Your task to perform on an android device: Do I have any events today? Image 0: 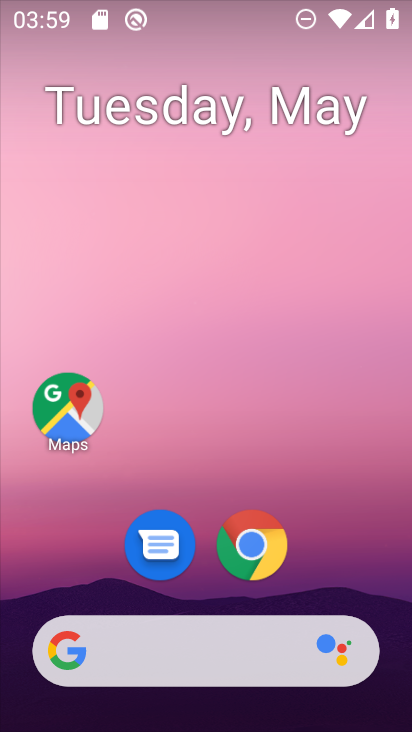
Step 0: drag from (376, 600) to (309, 56)
Your task to perform on an android device: Do I have any events today? Image 1: 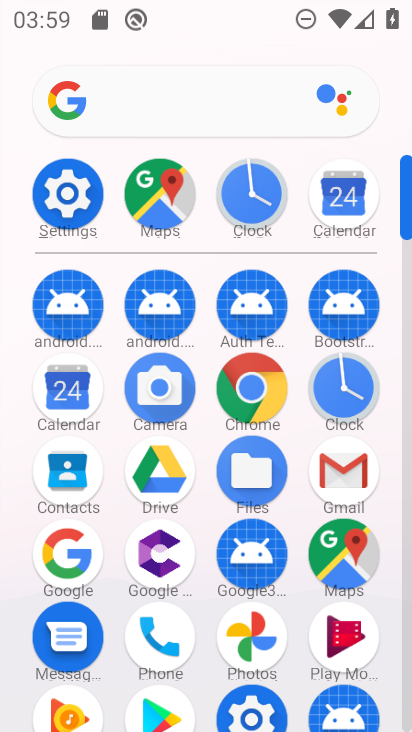
Step 1: click (405, 691)
Your task to perform on an android device: Do I have any events today? Image 2: 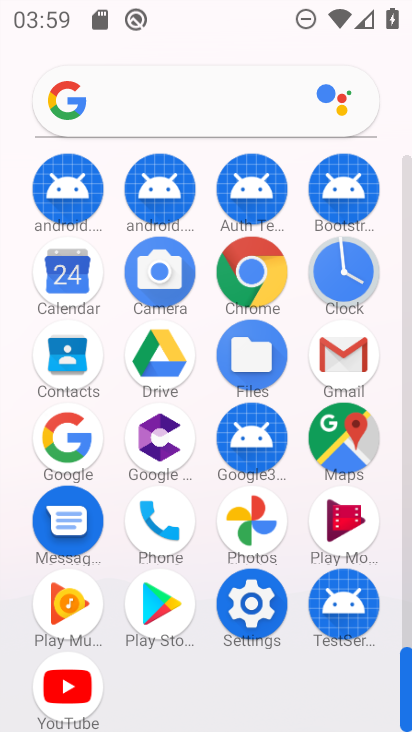
Step 2: click (63, 278)
Your task to perform on an android device: Do I have any events today? Image 3: 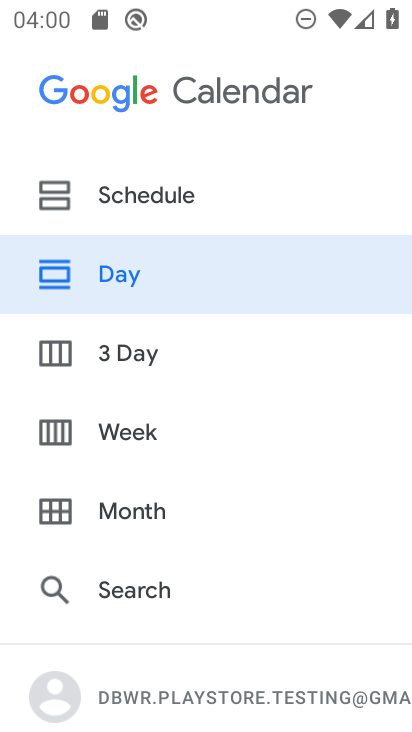
Step 3: click (123, 269)
Your task to perform on an android device: Do I have any events today? Image 4: 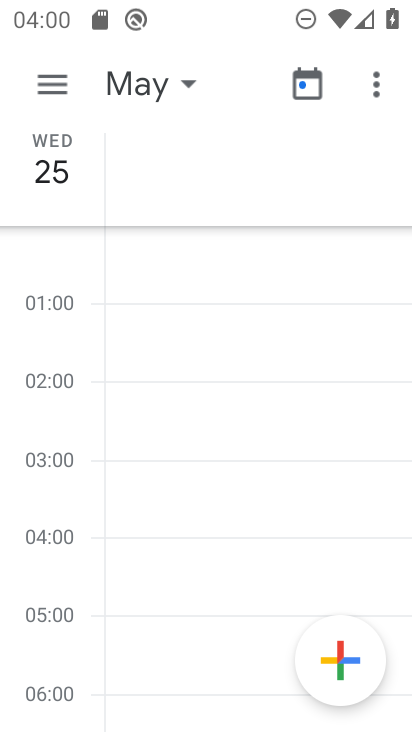
Step 4: click (181, 84)
Your task to perform on an android device: Do I have any events today? Image 5: 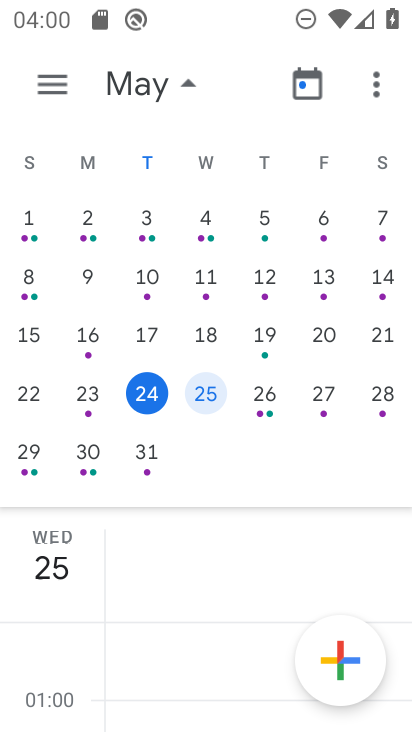
Step 5: click (146, 399)
Your task to perform on an android device: Do I have any events today? Image 6: 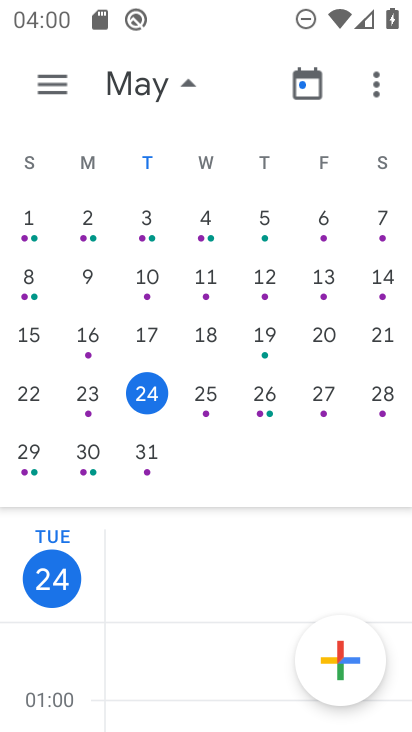
Step 6: task complete